Your task to perform on an android device: turn off location history Image 0: 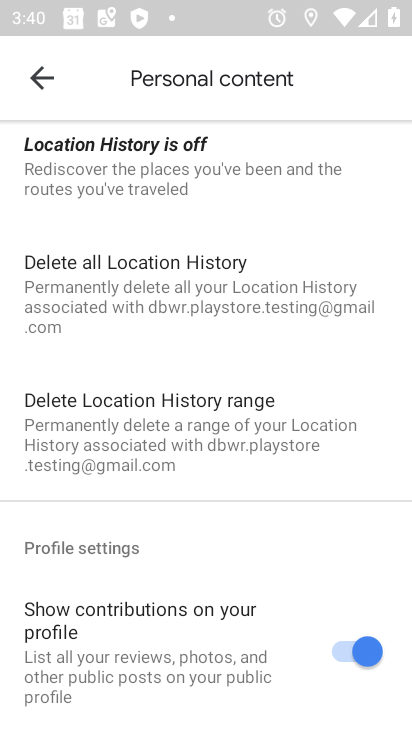
Step 0: drag from (161, 190) to (159, 317)
Your task to perform on an android device: turn off location history Image 1: 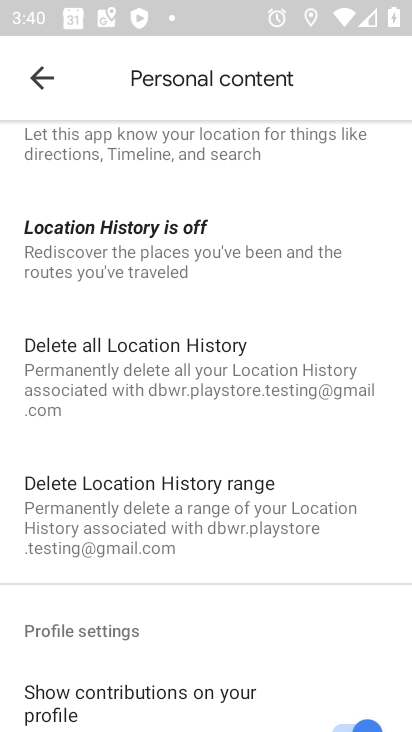
Step 1: click (131, 249)
Your task to perform on an android device: turn off location history Image 2: 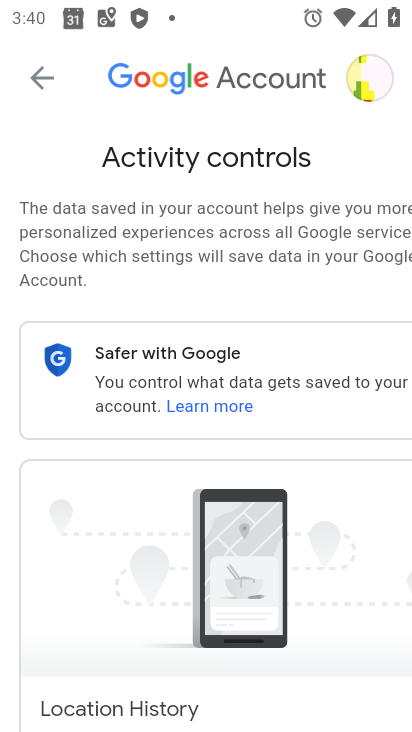
Step 2: task complete